Your task to perform on an android device: turn off airplane mode Image 0: 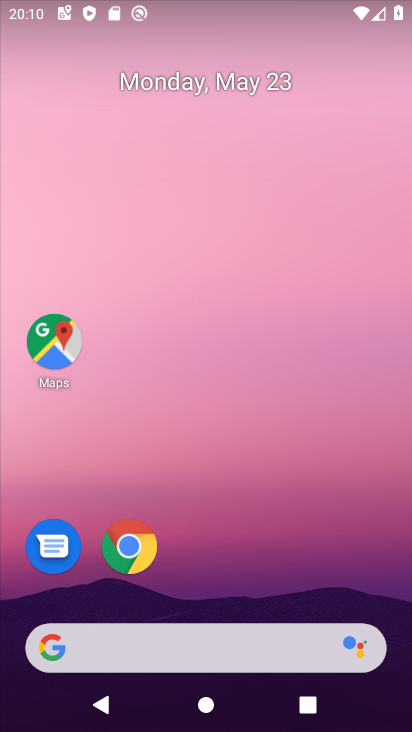
Step 0: drag from (388, 591) to (372, 180)
Your task to perform on an android device: turn off airplane mode Image 1: 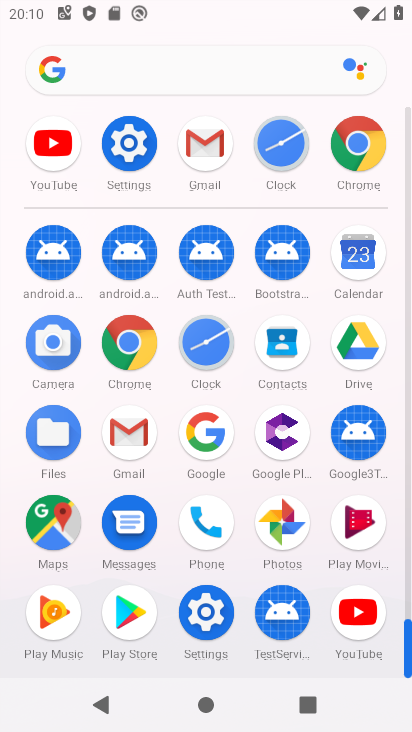
Step 1: click (218, 625)
Your task to perform on an android device: turn off airplane mode Image 2: 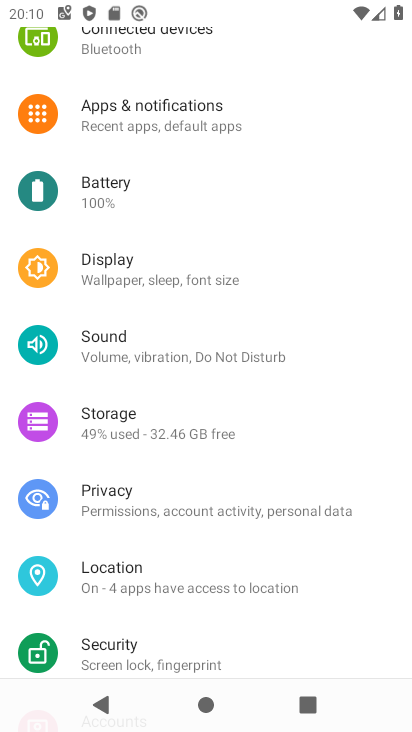
Step 2: drag from (369, 407) to (375, 506)
Your task to perform on an android device: turn off airplane mode Image 3: 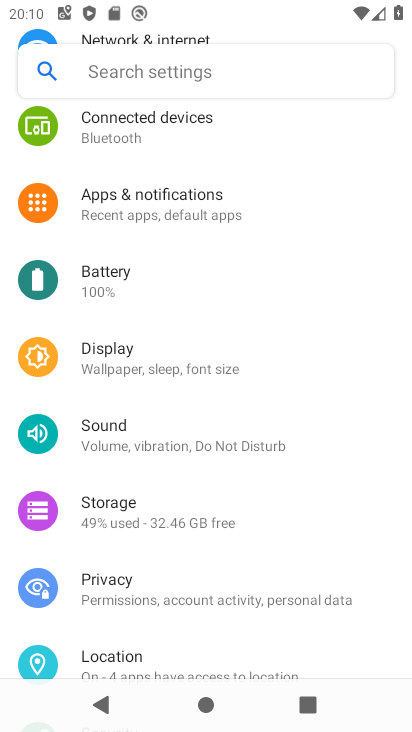
Step 3: drag from (380, 391) to (361, 458)
Your task to perform on an android device: turn off airplane mode Image 4: 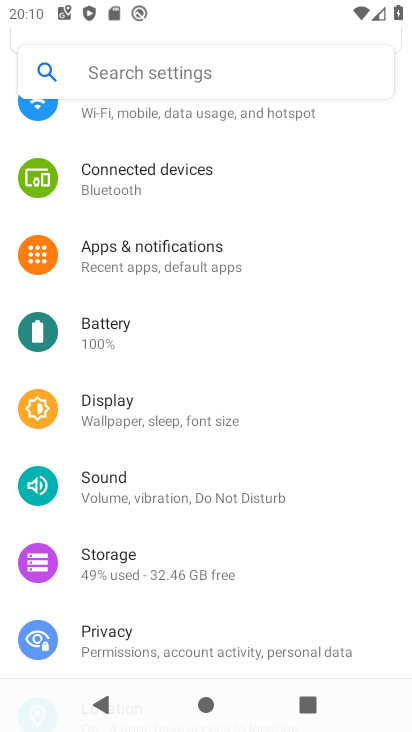
Step 4: drag from (370, 388) to (361, 512)
Your task to perform on an android device: turn off airplane mode Image 5: 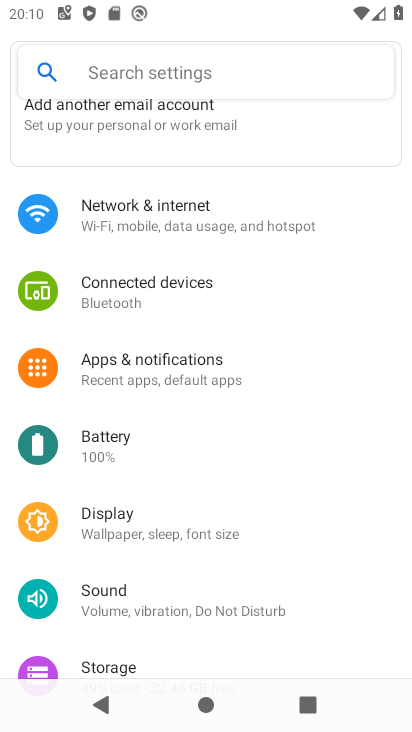
Step 5: drag from (364, 359) to (357, 489)
Your task to perform on an android device: turn off airplane mode Image 6: 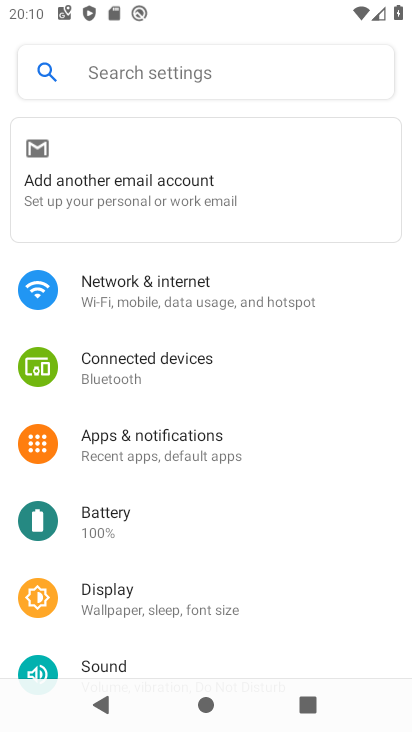
Step 6: drag from (364, 406) to (350, 553)
Your task to perform on an android device: turn off airplane mode Image 7: 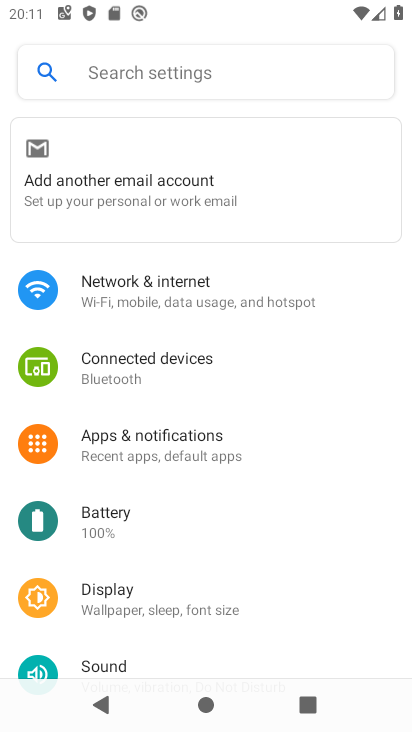
Step 7: click (226, 288)
Your task to perform on an android device: turn off airplane mode Image 8: 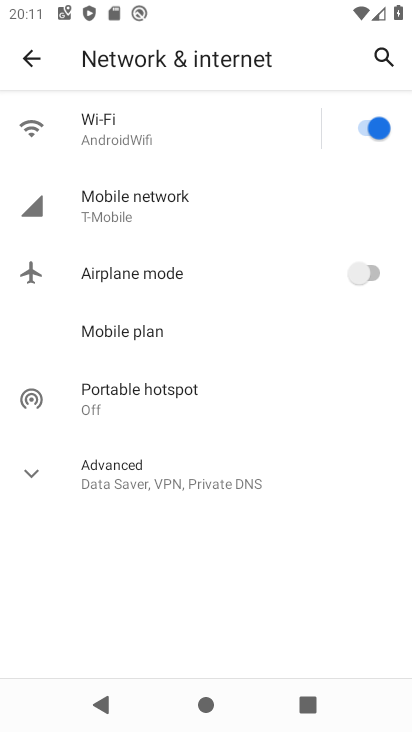
Step 8: task complete